Your task to perform on an android device: Go to accessibility settings Image 0: 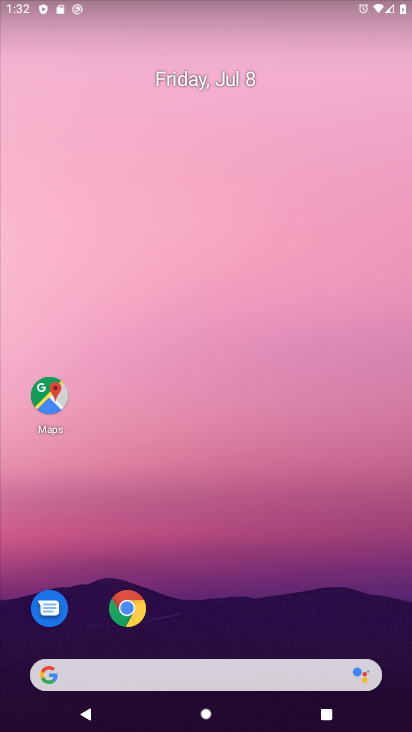
Step 0: drag from (211, 615) to (192, 98)
Your task to perform on an android device: Go to accessibility settings Image 1: 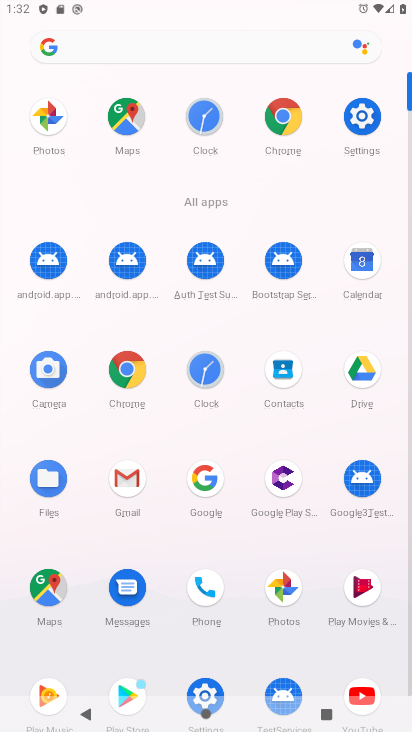
Step 1: click (348, 123)
Your task to perform on an android device: Go to accessibility settings Image 2: 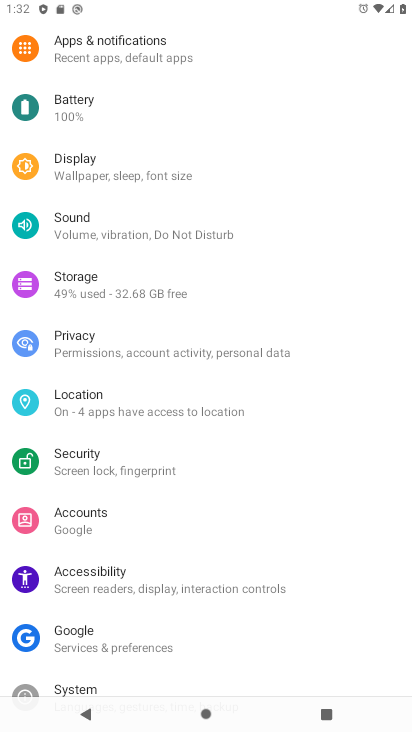
Step 2: click (84, 577)
Your task to perform on an android device: Go to accessibility settings Image 3: 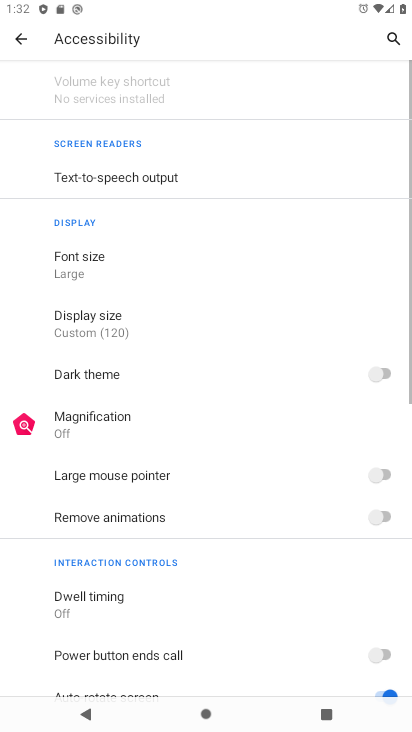
Step 3: task complete